Your task to perform on an android device: see sites visited before in the chrome app Image 0: 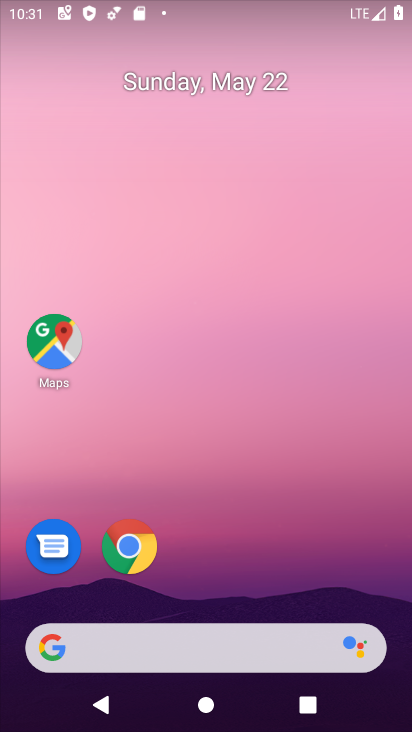
Step 0: click (128, 548)
Your task to perform on an android device: see sites visited before in the chrome app Image 1: 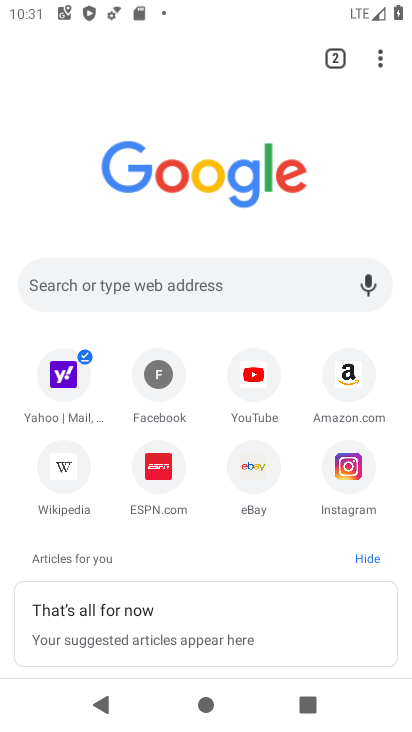
Step 1: click (385, 56)
Your task to perform on an android device: see sites visited before in the chrome app Image 2: 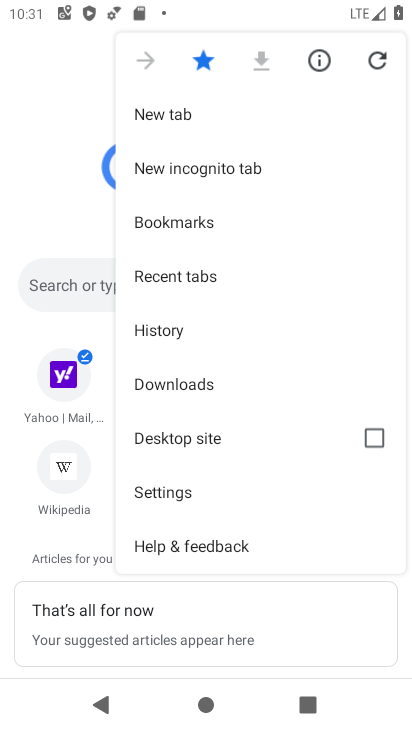
Step 2: click (167, 327)
Your task to perform on an android device: see sites visited before in the chrome app Image 3: 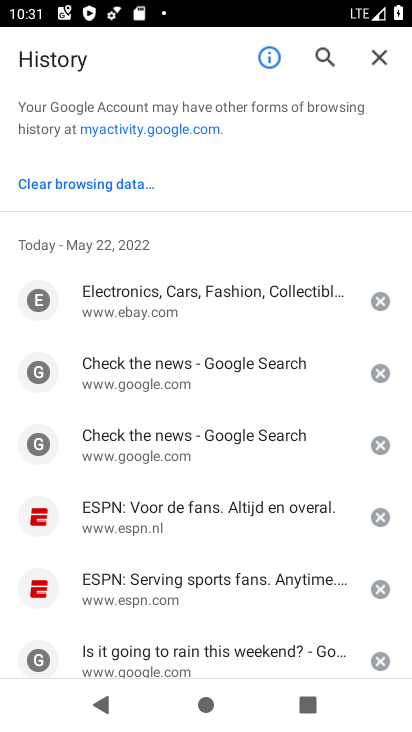
Step 3: task complete